Your task to perform on an android device: turn off sleep mode Image 0: 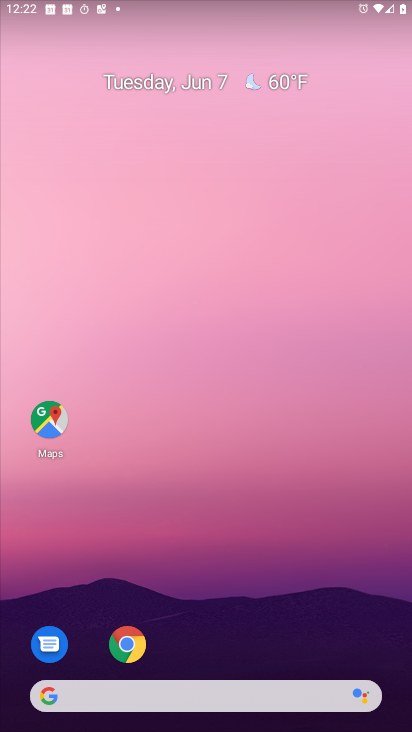
Step 0: drag from (185, 18) to (175, 727)
Your task to perform on an android device: turn off sleep mode Image 1: 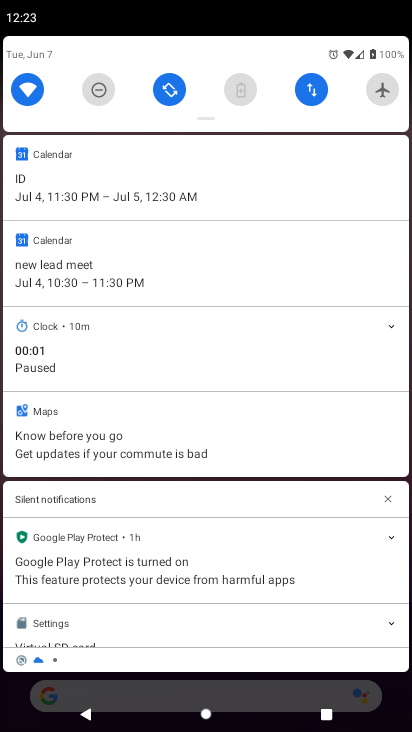
Step 1: task complete